Your task to perform on an android device: set the stopwatch Image 0: 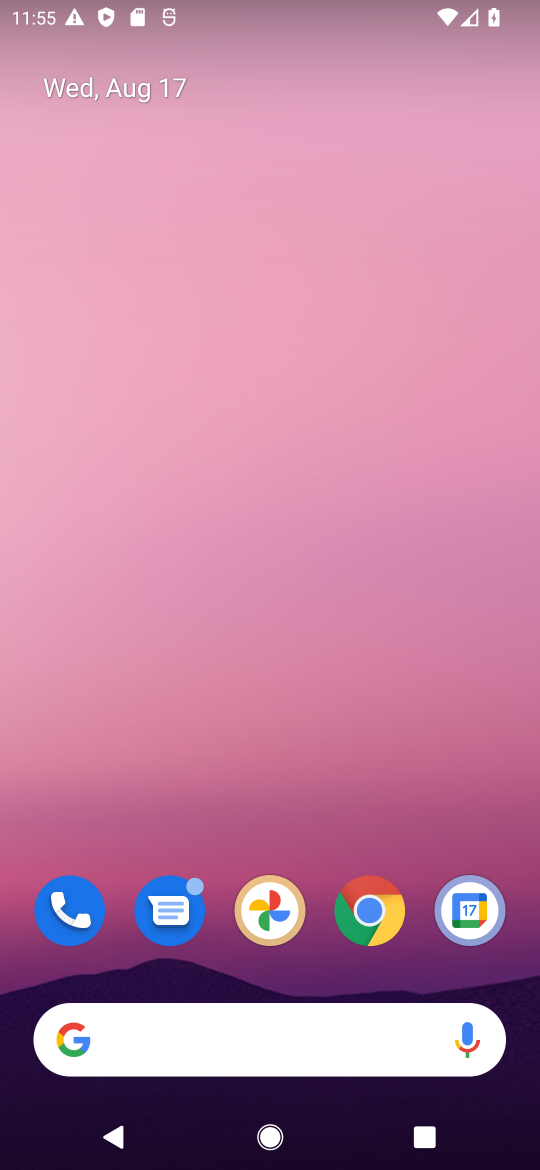
Step 0: drag from (272, 987) to (468, 11)
Your task to perform on an android device: set the stopwatch Image 1: 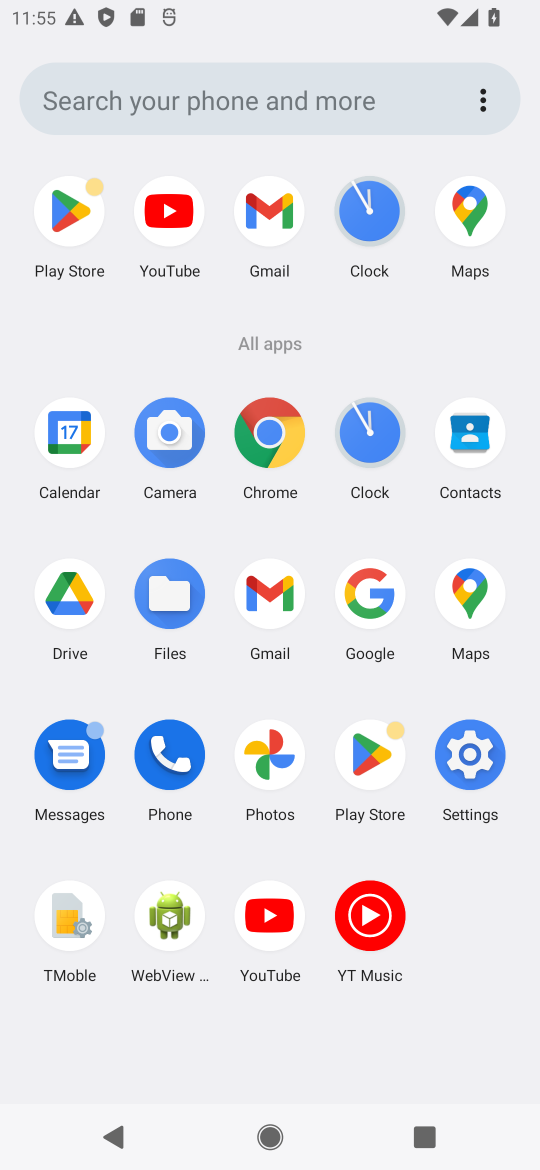
Step 1: click (373, 208)
Your task to perform on an android device: set the stopwatch Image 2: 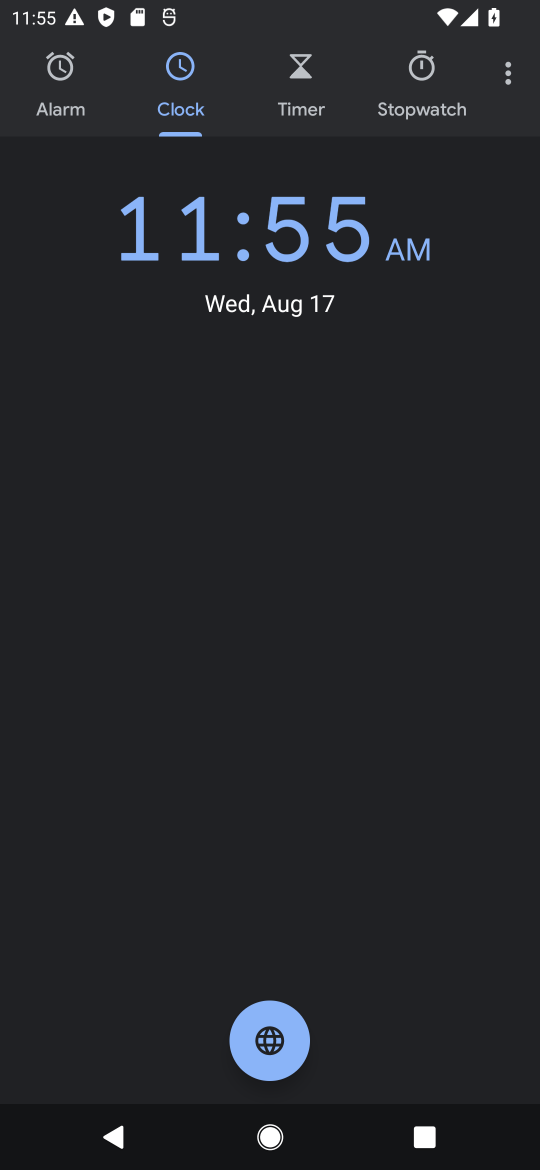
Step 2: click (425, 71)
Your task to perform on an android device: set the stopwatch Image 3: 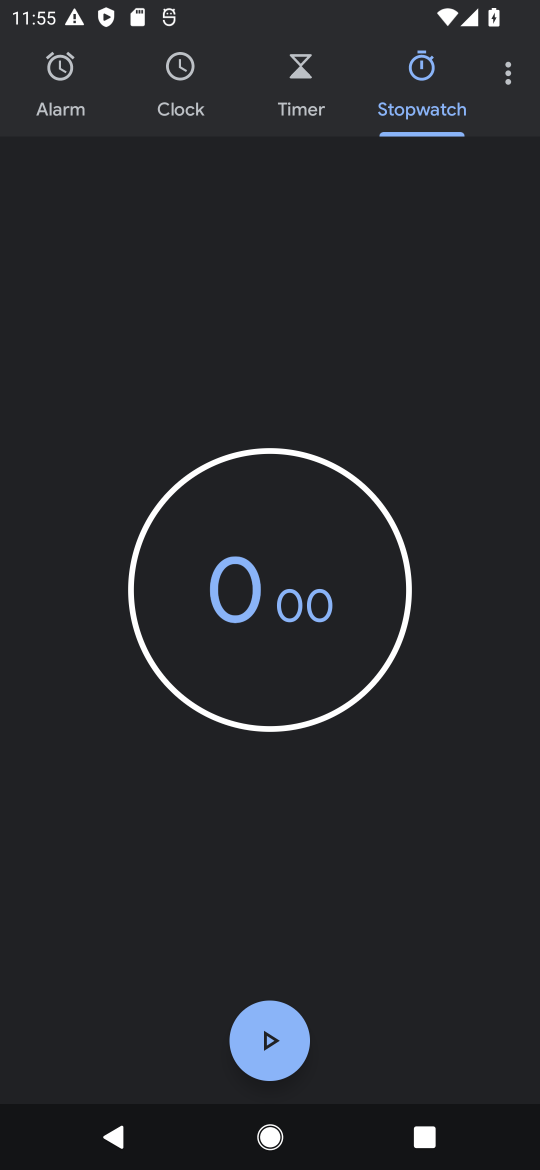
Step 3: task complete